Your task to perform on an android device: Open calendar and show me the second week of next month Image 0: 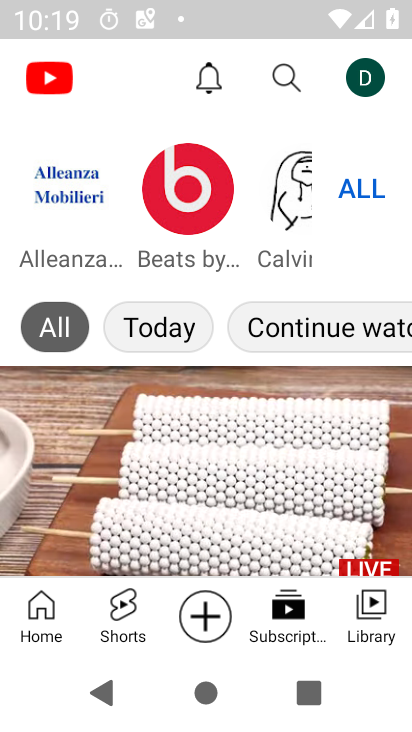
Step 0: press home button
Your task to perform on an android device: Open calendar and show me the second week of next month Image 1: 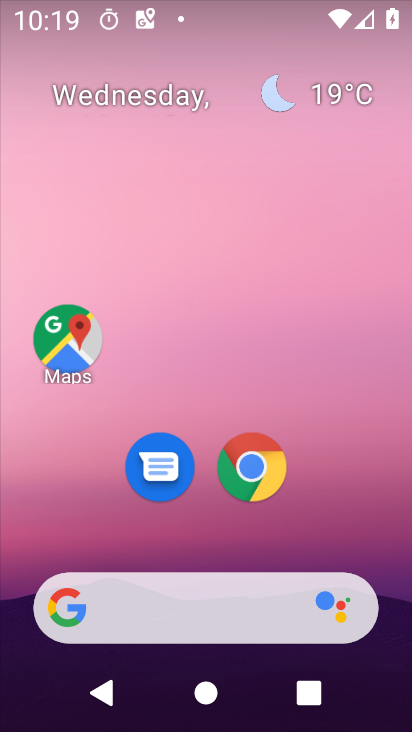
Step 1: click (130, 93)
Your task to perform on an android device: Open calendar and show me the second week of next month Image 2: 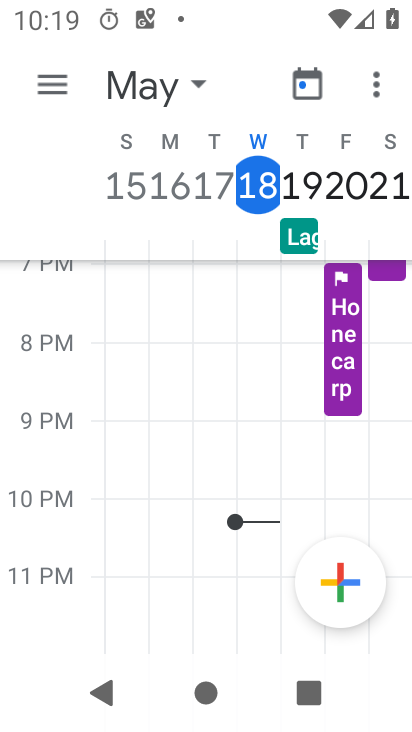
Step 2: click (186, 89)
Your task to perform on an android device: Open calendar and show me the second week of next month Image 3: 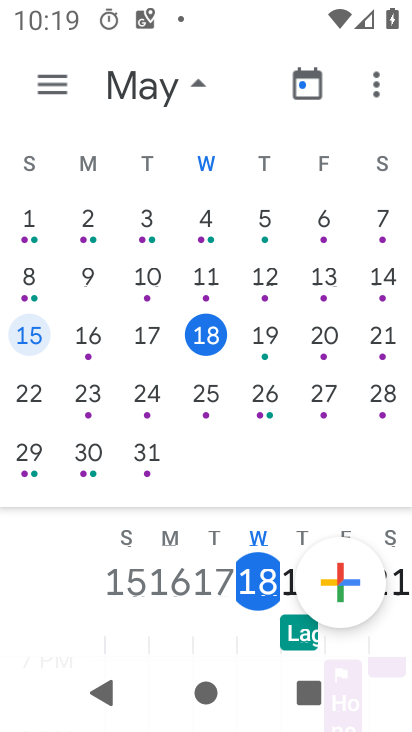
Step 3: drag from (306, 301) to (0, 289)
Your task to perform on an android device: Open calendar and show me the second week of next month Image 4: 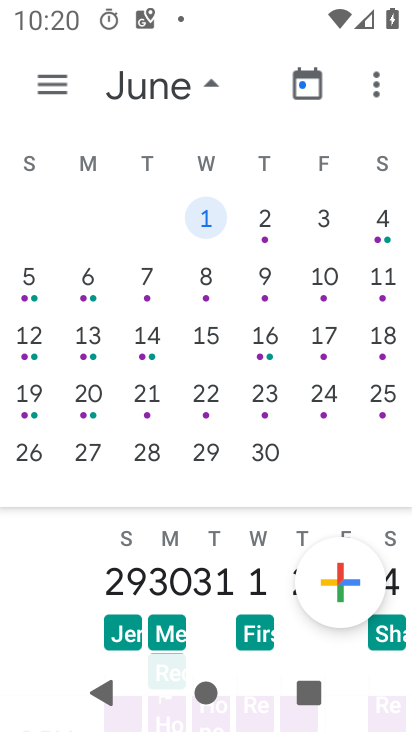
Step 4: click (39, 288)
Your task to perform on an android device: Open calendar and show me the second week of next month Image 5: 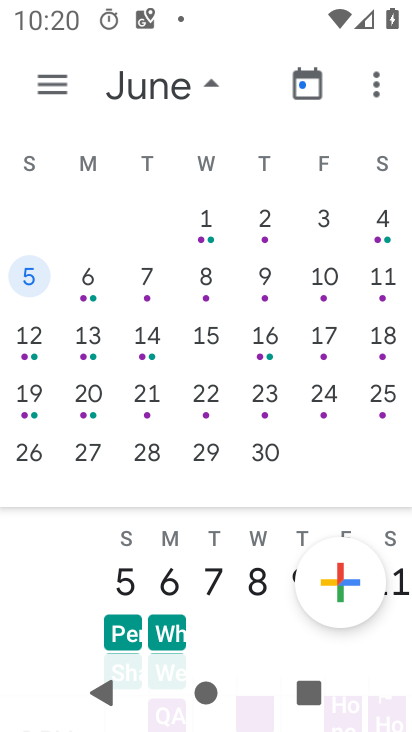
Step 5: task complete